Your task to perform on an android device: turn off javascript in the chrome app Image 0: 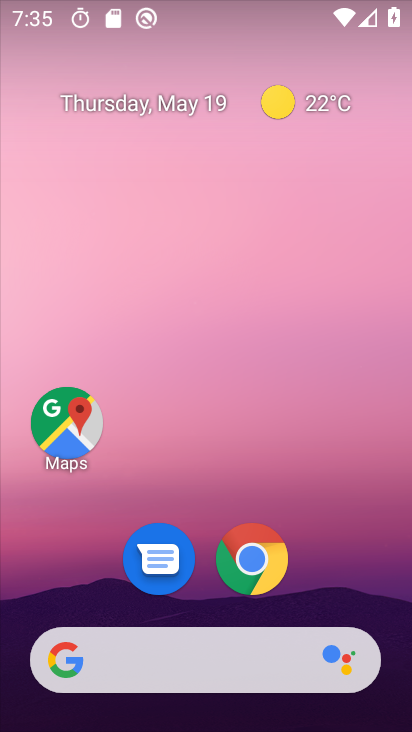
Step 0: click (252, 555)
Your task to perform on an android device: turn off javascript in the chrome app Image 1: 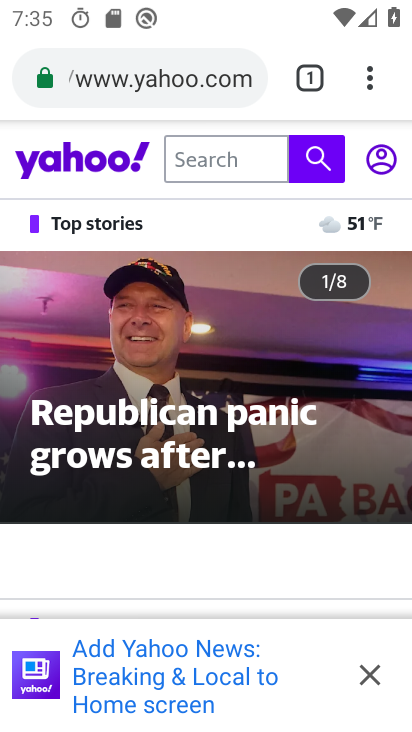
Step 1: click (366, 76)
Your task to perform on an android device: turn off javascript in the chrome app Image 2: 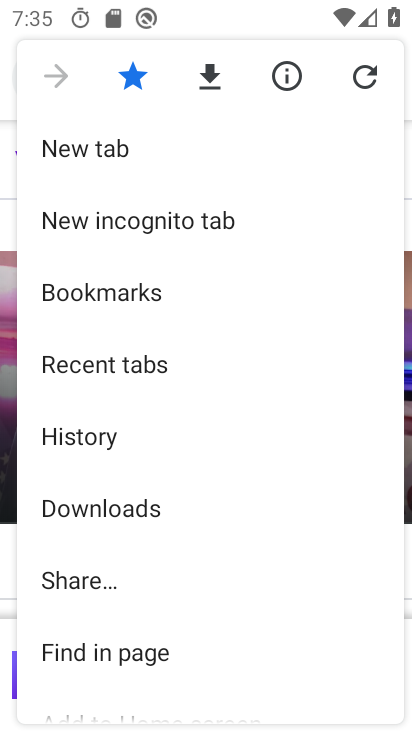
Step 2: drag from (168, 601) to (194, 107)
Your task to perform on an android device: turn off javascript in the chrome app Image 3: 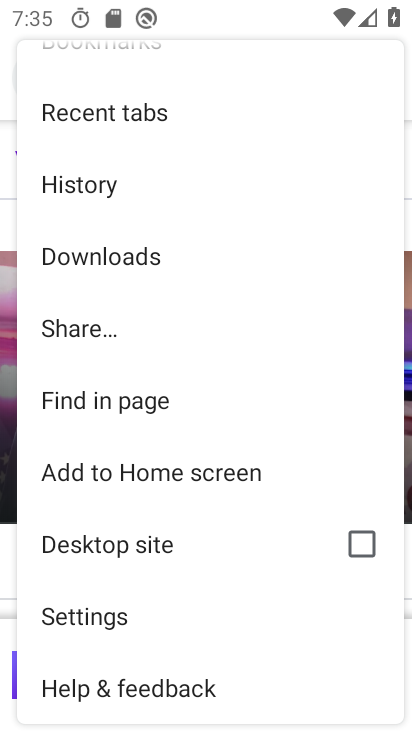
Step 3: click (119, 622)
Your task to perform on an android device: turn off javascript in the chrome app Image 4: 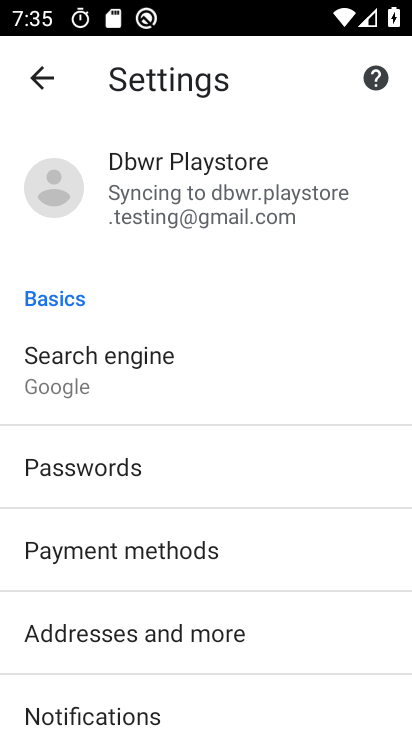
Step 4: drag from (203, 681) to (187, 272)
Your task to perform on an android device: turn off javascript in the chrome app Image 5: 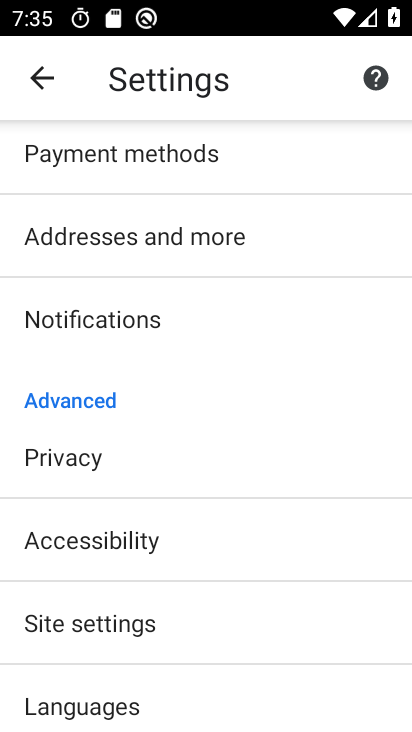
Step 5: click (161, 632)
Your task to perform on an android device: turn off javascript in the chrome app Image 6: 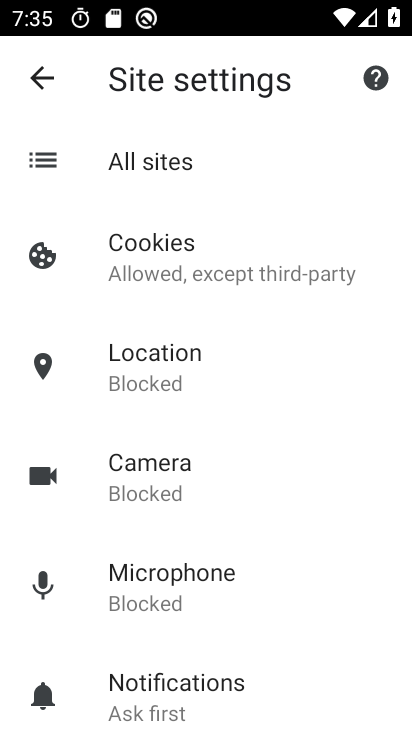
Step 6: drag from (179, 671) to (225, 269)
Your task to perform on an android device: turn off javascript in the chrome app Image 7: 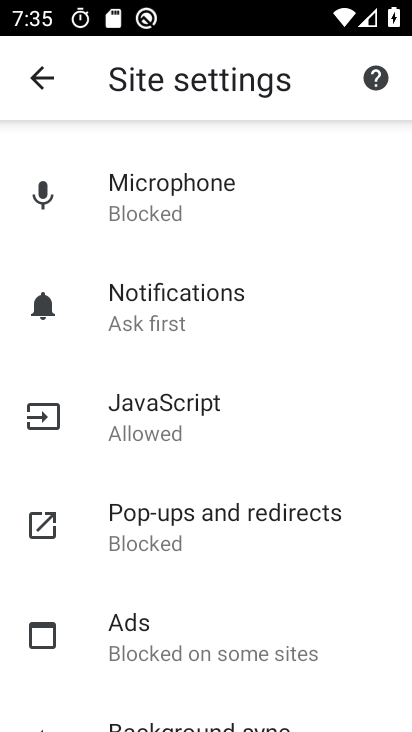
Step 7: click (159, 436)
Your task to perform on an android device: turn off javascript in the chrome app Image 8: 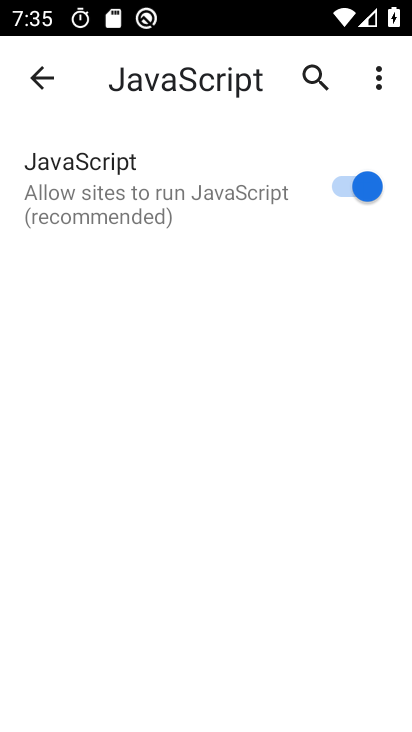
Step 8: click (344, 190)
Your task to perform on an android device: turn off javascript in the chrome app Image 9: 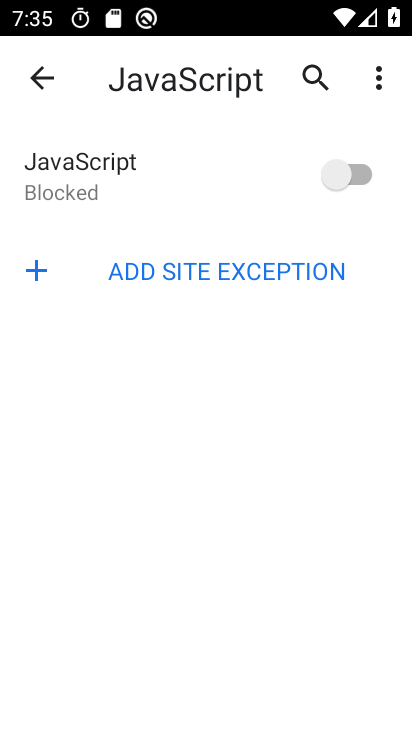
Step 9: task complete